Your task to perform on an android device: open sync settings in chrome Image 0: 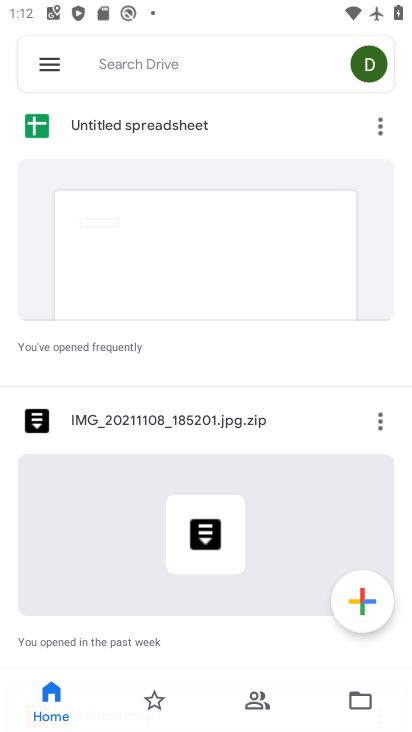
Step 0: press home button
Your task to perform on an android device: open sync settings in chrome Image 1: 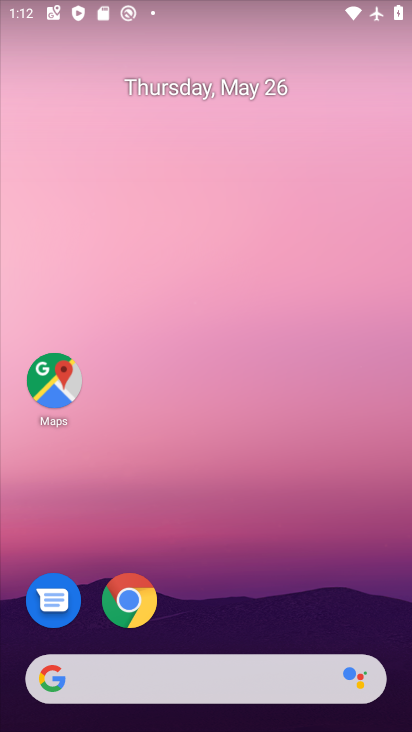
Step 1: drag from (270, 569) to (275, 109)
Your task to perform on an android device: open sync settings in chrome Image 2: 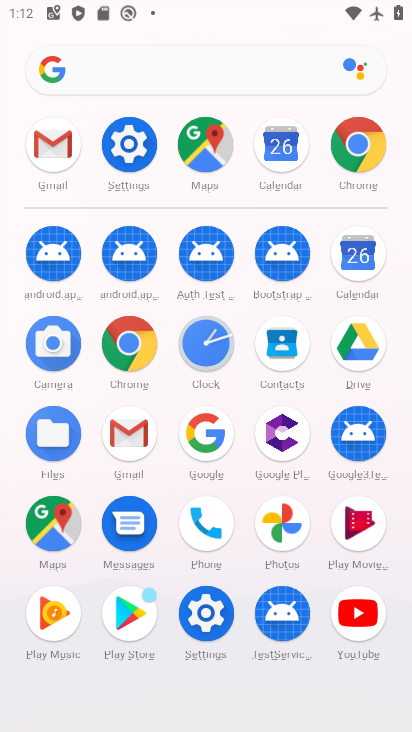
Step 2: click (370, 147)
Your task to perform on an android device: open sync settings in chrome Image 3: 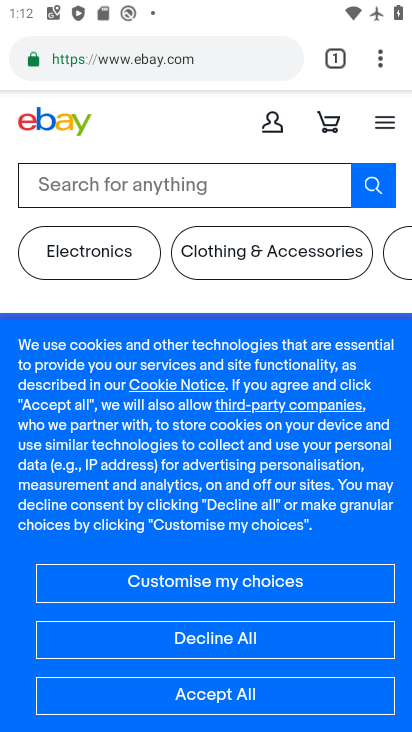
Step 3: drag from (384, 51) to (233, 625)
Your task to perform on an android device: open sync settings in chrome Image 4: 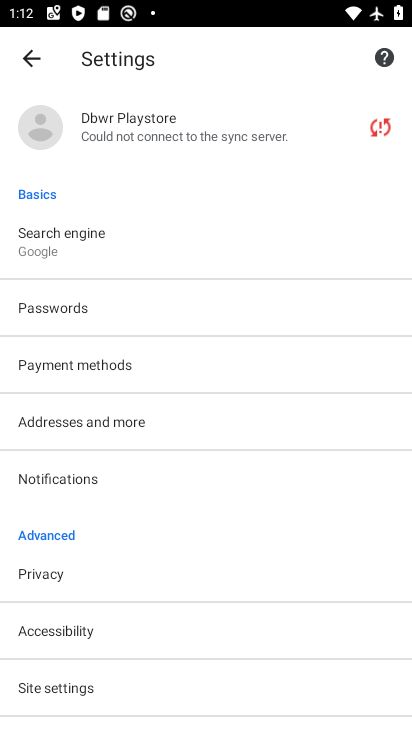
Step 4: click (181, 121)
Your task to perform on an android device: open sync settings in chrome Image 5: 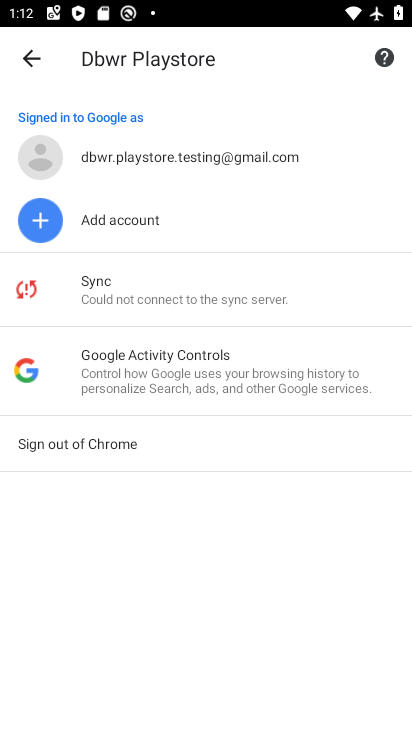
Step 5: click (122, 285)
Your task to perform on an android device: open sync settings in chrome Image 6: 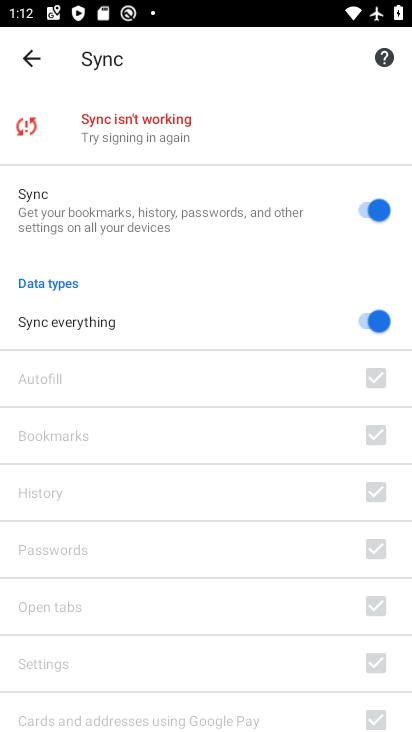
Step 6: task complete